Your task to perform on an android device: change alarm snooze length Image 0: 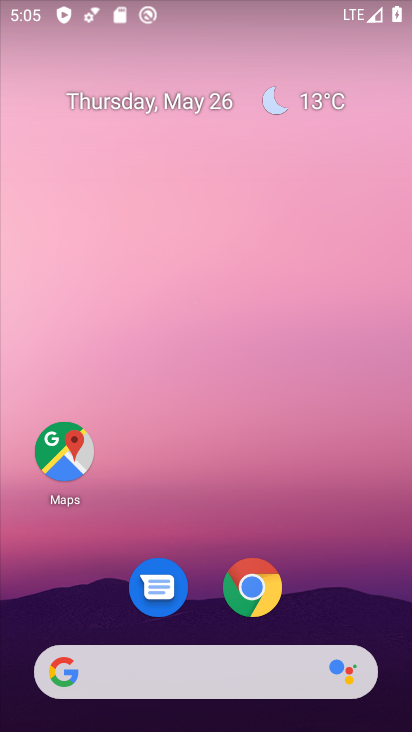
Step 0: drag from (219, 722) to (193, 185)
Your task to perform on an android device: change alarm snooze length Image 1: 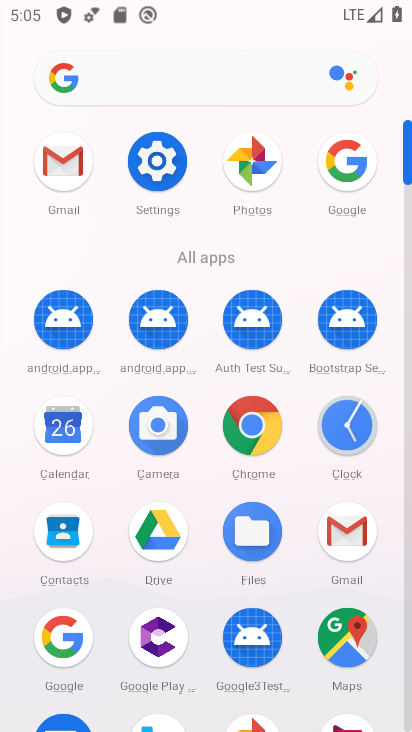
Step 1: click (347, 422)
Your task to perform on an android device: change alarm snooze length Image 2: 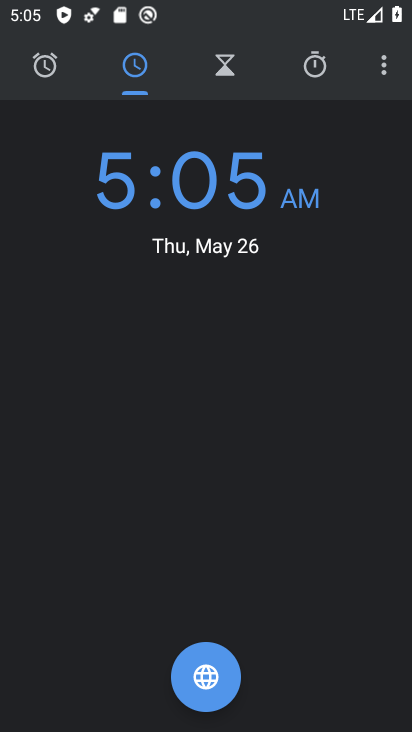
Step 2: click (384, 74)
Your task to perform on an android device: change alarm snooze length Image 3: 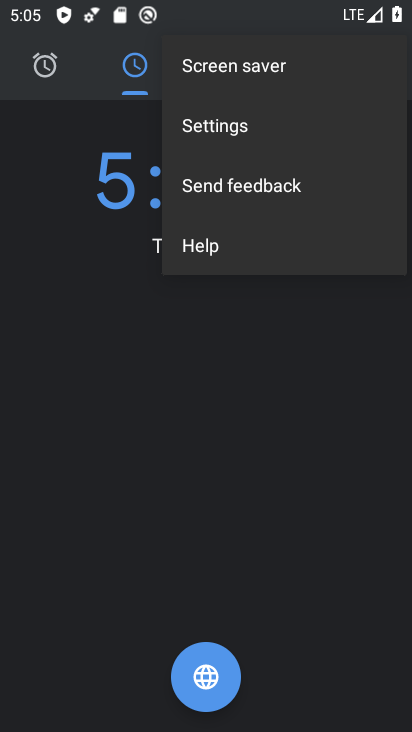
Step 3: click (236, 130)
Your task to perform on an android device: change alarm snooze length Image 4: 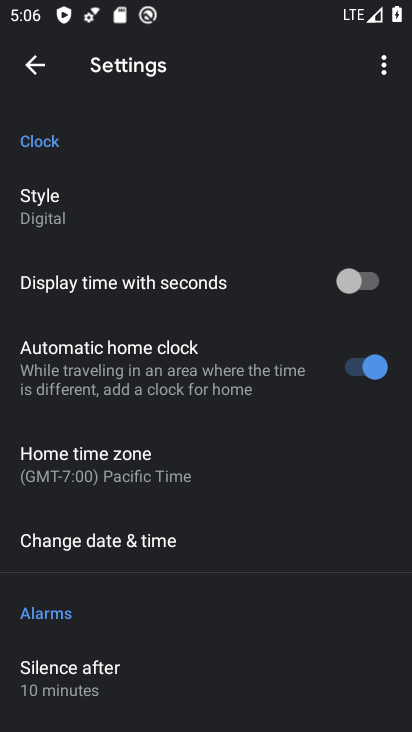
Step 4: drag from (150, 656) to (162, 137)
Your task to perform on an android device: change alarm snooze length Image 5: 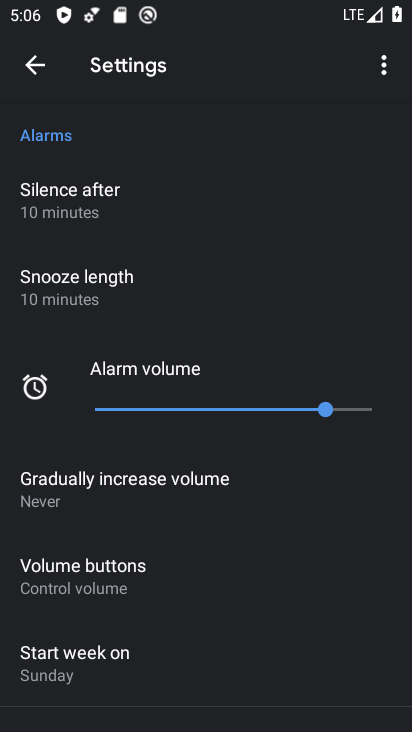
Step 5: drag from (133, 668) to (137, 531)
Your task to perform on an android device: change alarm snooze length Image 6: 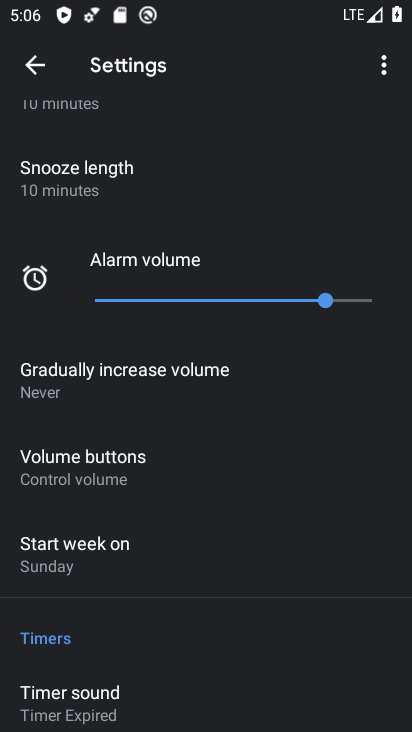
Step 6: click (78, 187)
Your task to perform on an android device: change alarm snooze length Image 7: 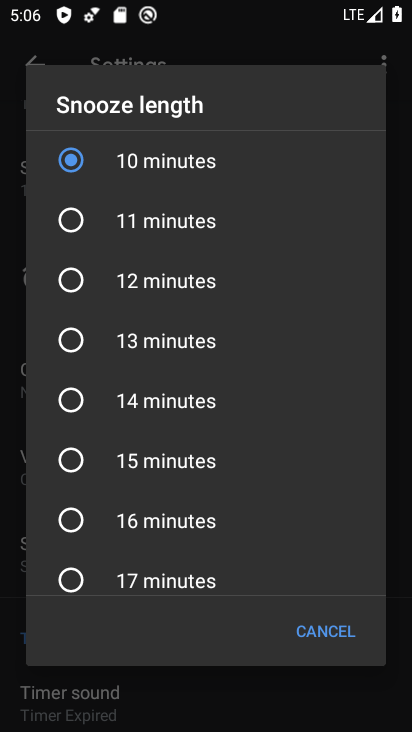
Step 7: click (74, 455)
Your task to perform on an android device: change alarm snooze length Image 8: 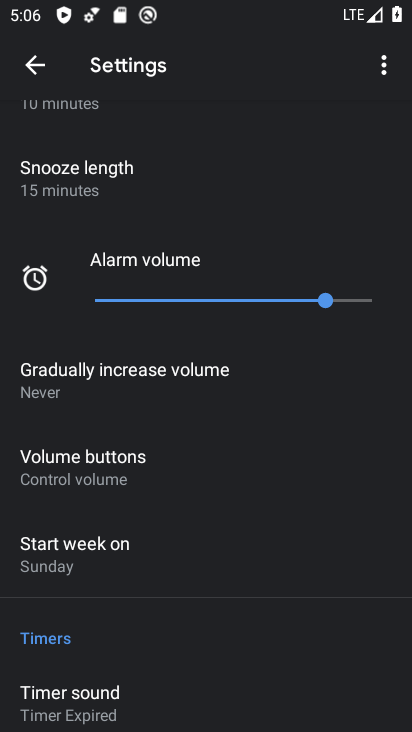
Step 8: task complete